Your task to perform on an android device: Open Chrome and go to the settings page Image 0: 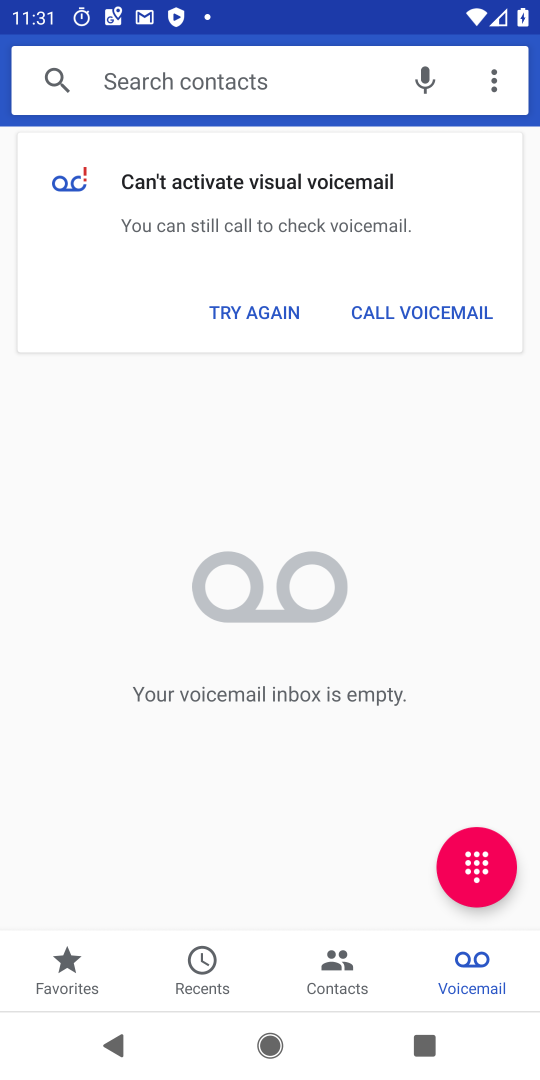
Step 0: press home button
Your task to perform on an android device: Open Chrome and go to the settings page Image 1: 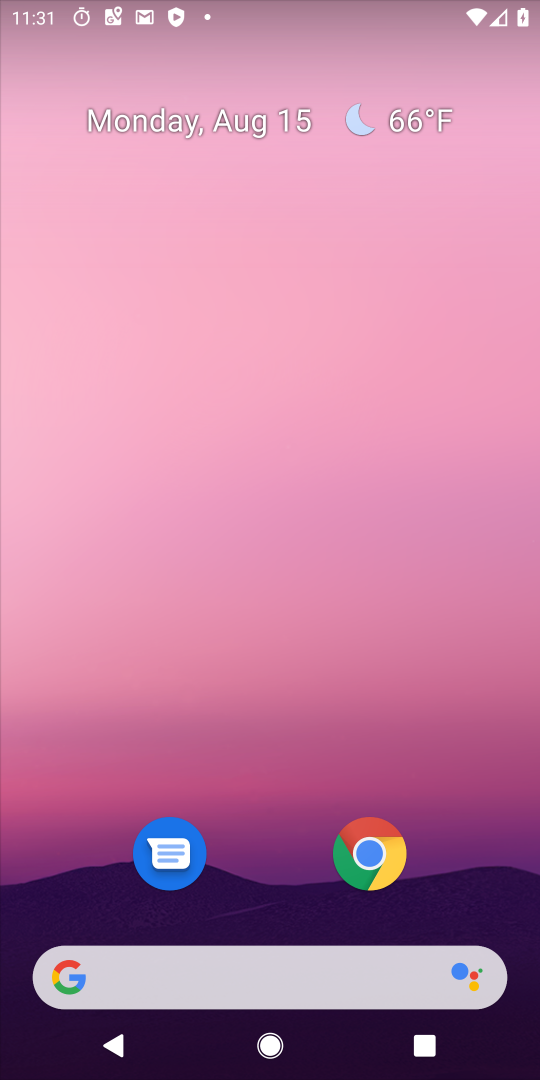
Step 1: click (360, 843)
Your task to perform on an android device: Open Chrome and go to the settings page Image 2: 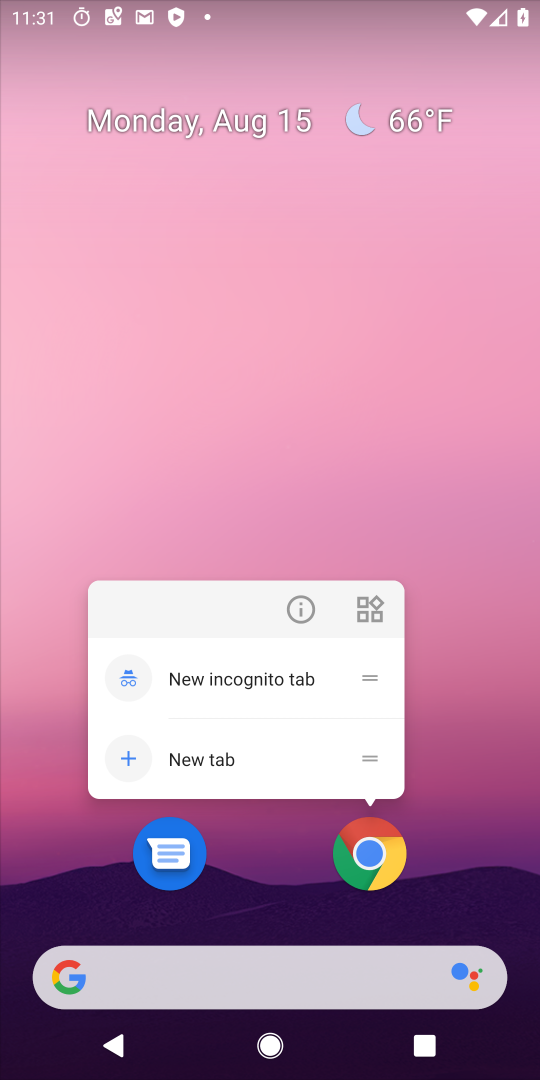
Step 2: click (363, 863)
Your task to perform on an android device: Open Chrome and go to the settings page Image 3: 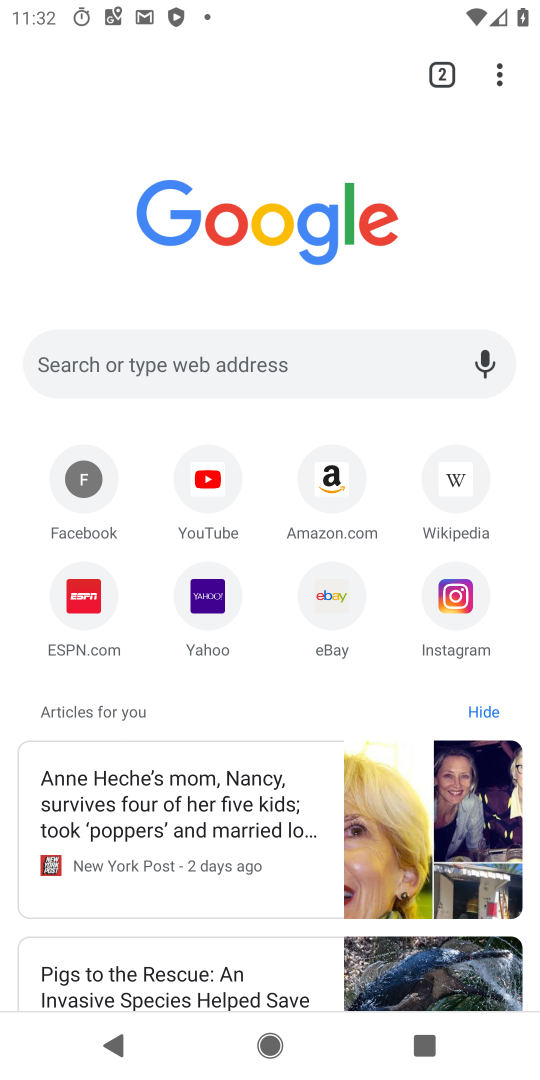
Step 3: click (495, 75)
Your task to perform on an android device: Open Chrome and go to the settings page Image 4: 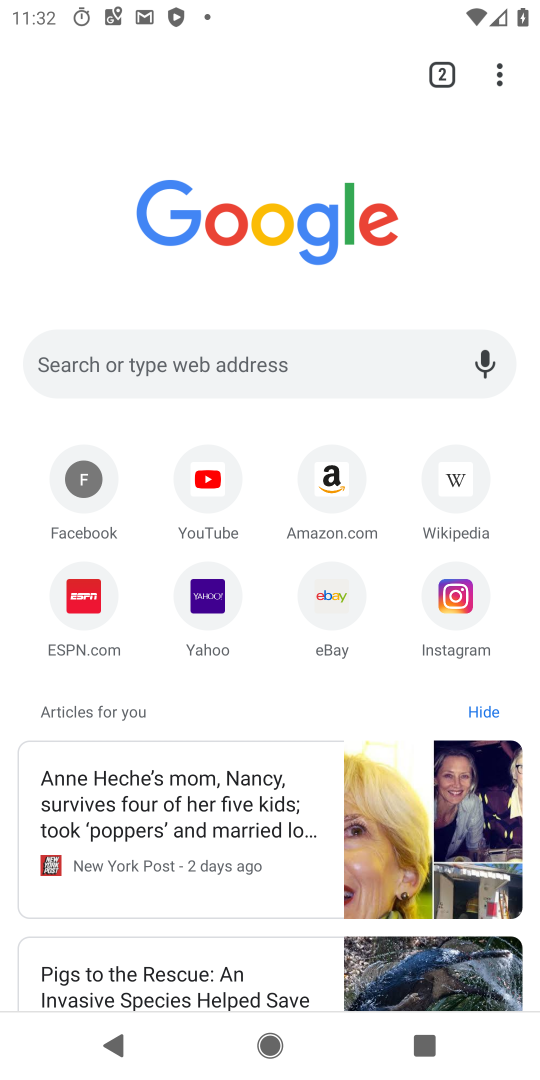
Step 4: click (489, 78)
Your task to perform on an android device: Open Chrome and go to the settings page Image 5: 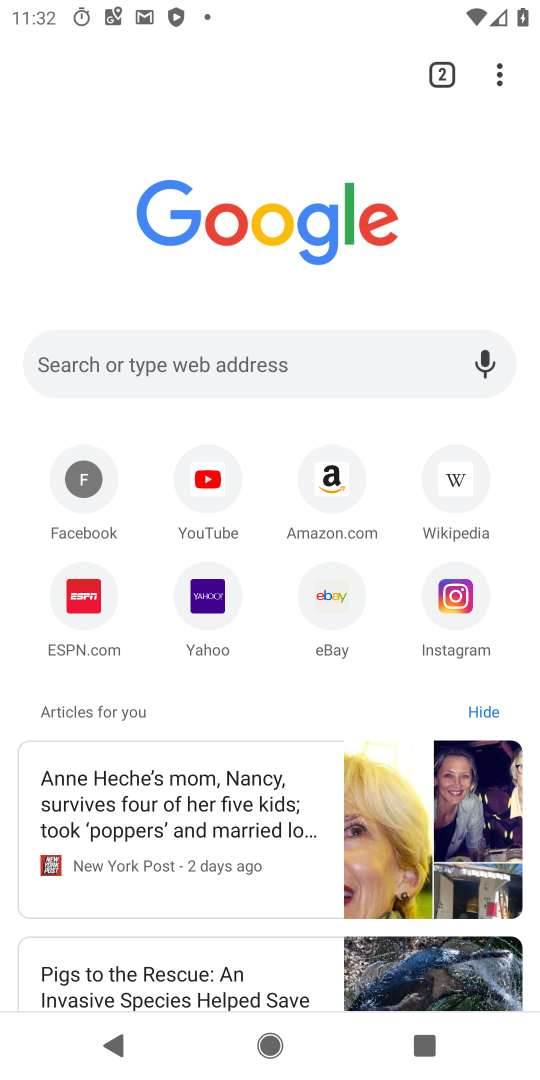
Step 5: click (498, 70)
Your task to perform on an android device: Open Chrome and go to the settings page Image 6: 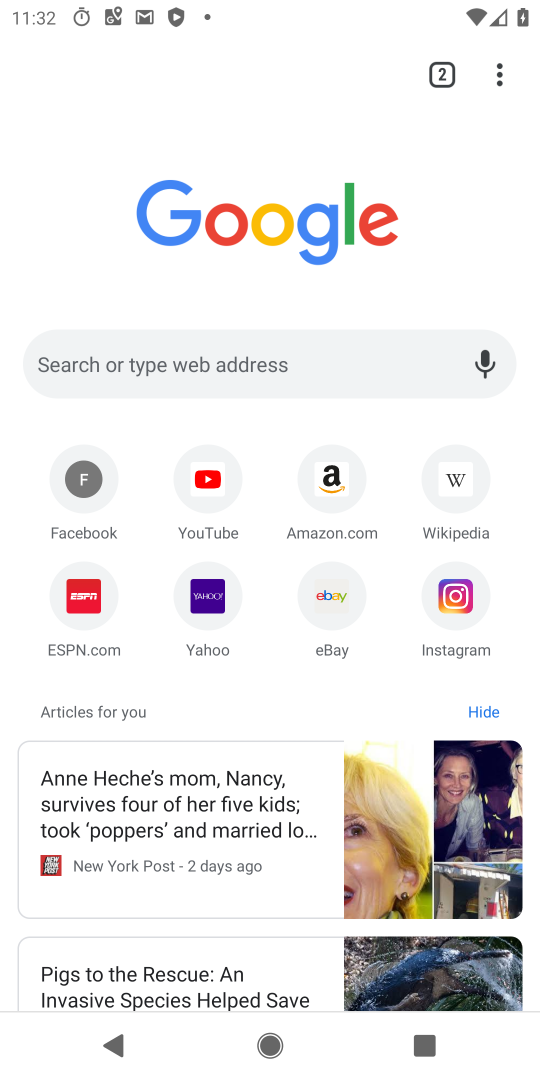
Step 6: click (503, 69)
Your task to perform on an android device: Open Chrome and go to the settings page Image 7: 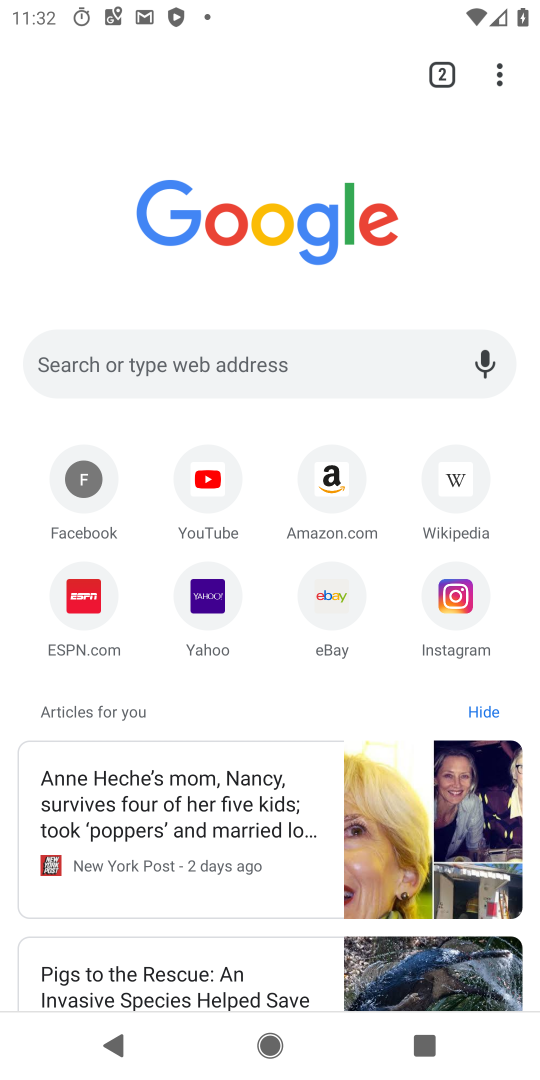
Step 7: click (500, 72)
Your task to perform on an android device: Open Chrome and go to the settings page Image 8: 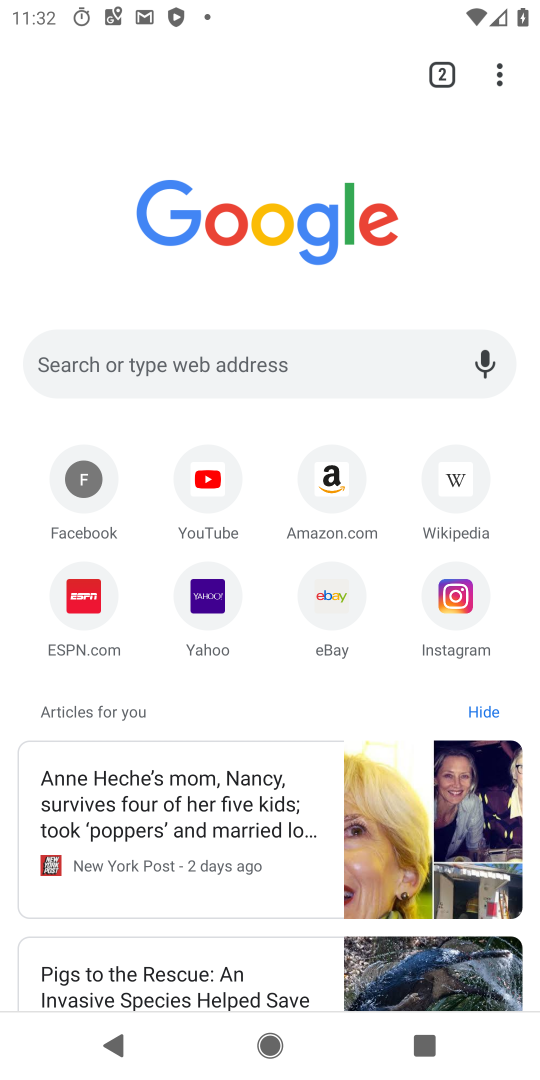
Step 8: click (493, 74)
Your task to perform on an android device: Open Chrome and go to the settings page Image 9: 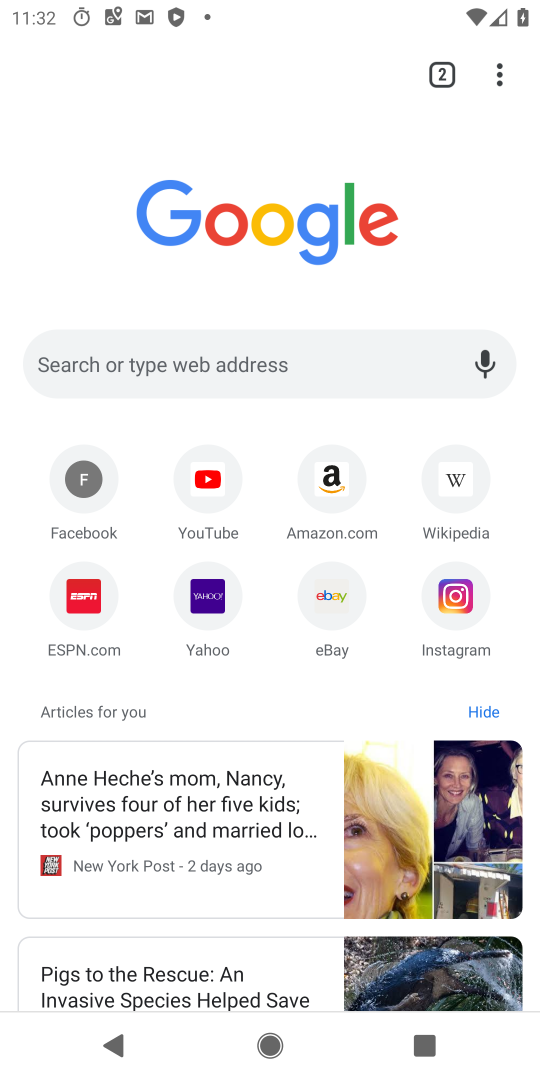
Step 9: click (502, 74)
Your task to perform on an android device: Open Chrome and go to the settings page Image 10: 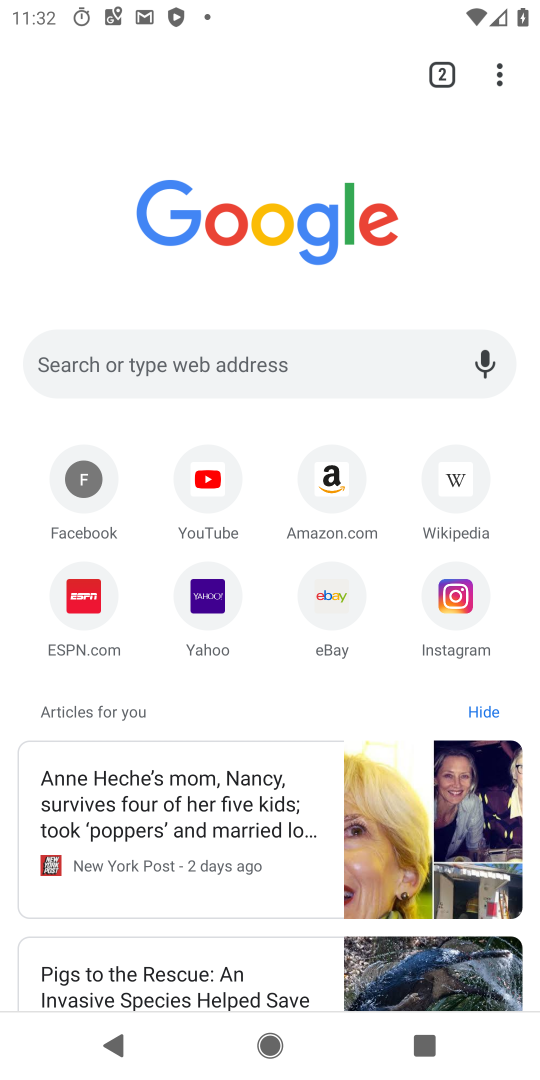
Step 10: click (502, 75)
Your task to perform on an android device: Open Chrome and go to the settings page Image 11: 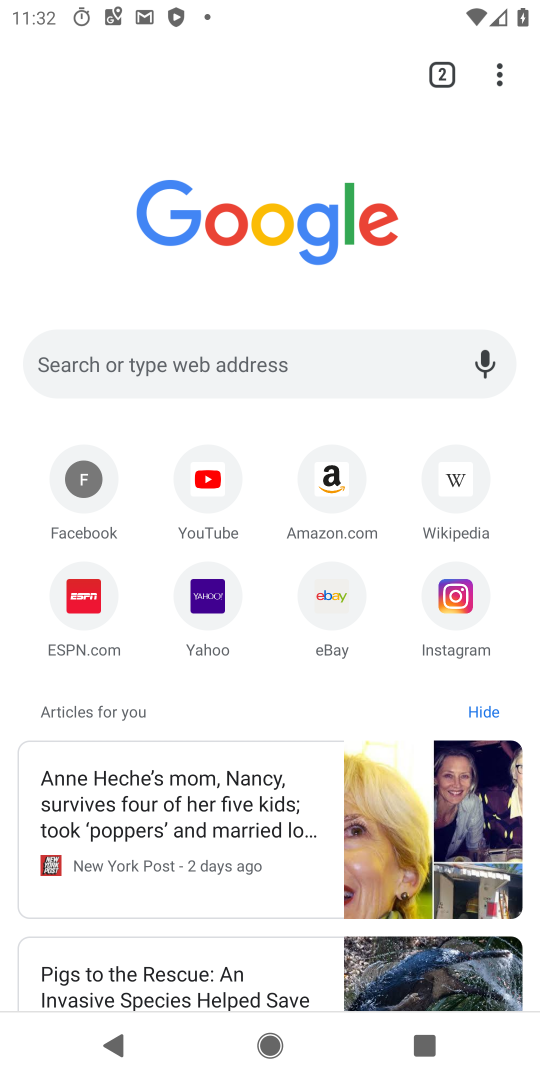
Step 11: click (503, 72)
Your task to perform on an android device: Open Chrome and go to the settings page Image 12: 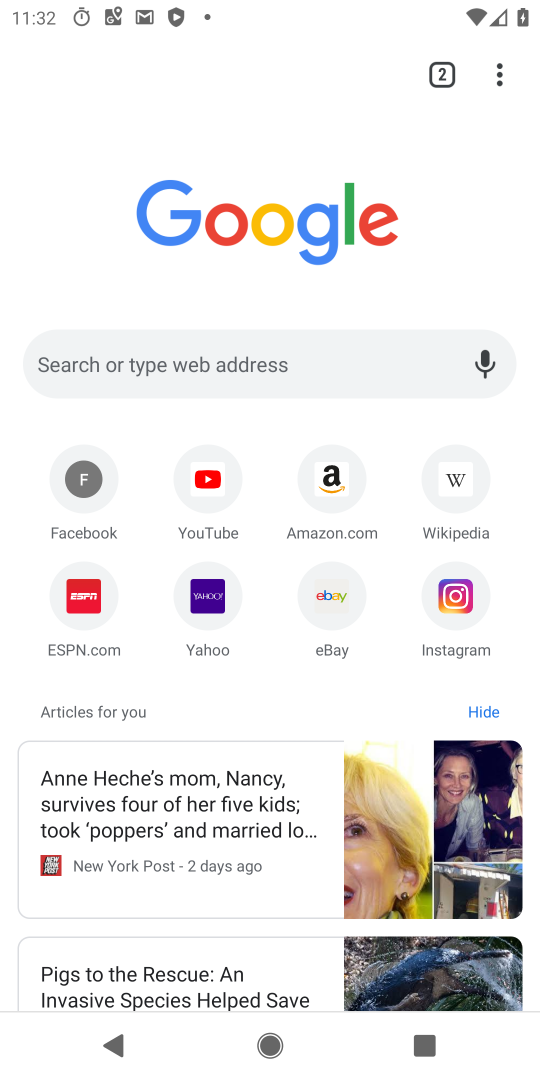
Step 12: click (500, 75)
Your task to perform on an android device: Open Chrome and go to the settings page Image 13: 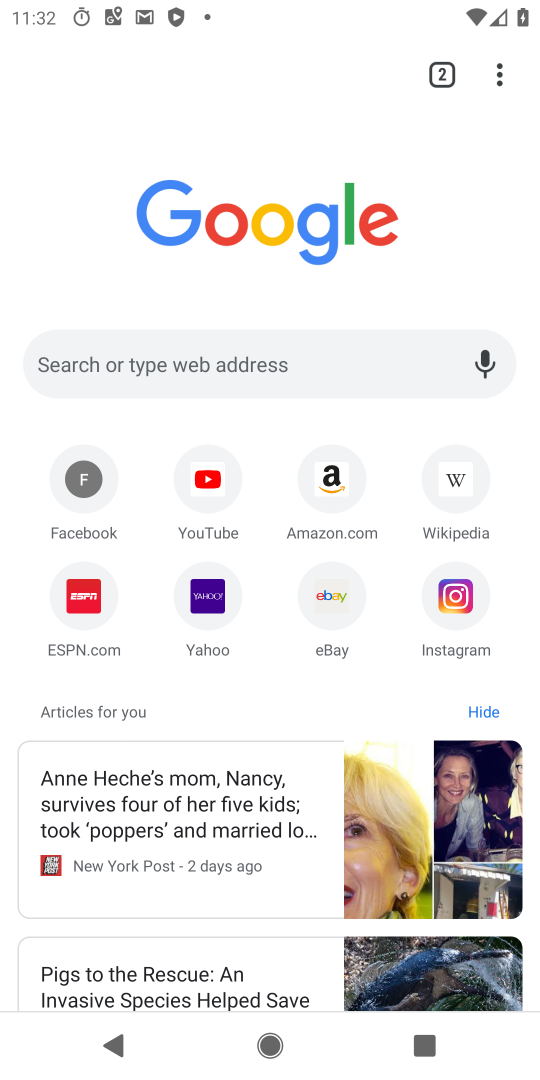
Step 13: click (495, 75)
Your task to perform on an android device: Open Chrome and go to the settings page Image 14: 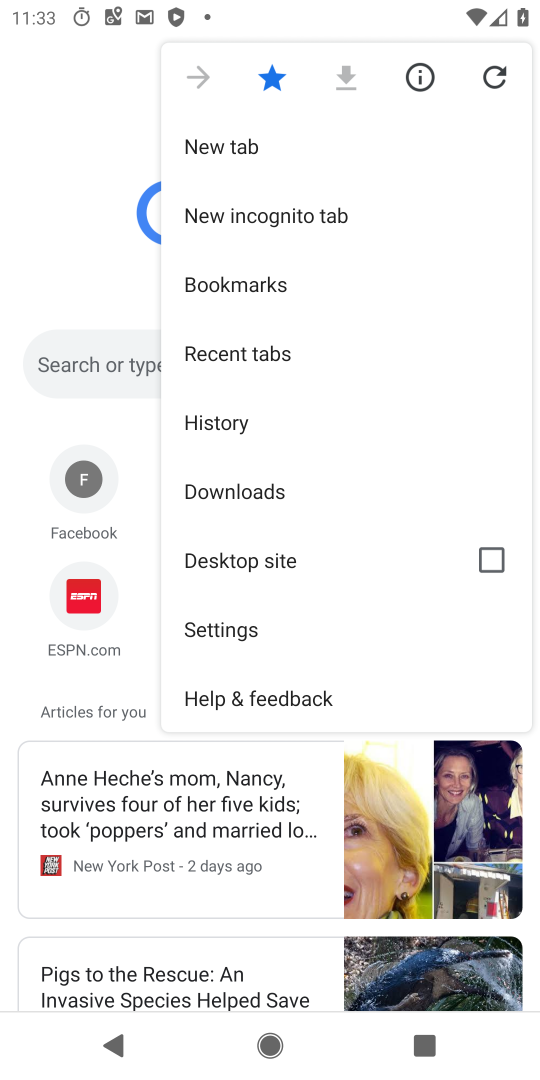
Step 14: click (227, 623)
Your task to perform on an android device: Open Chrome and go to the settings page Image 15: 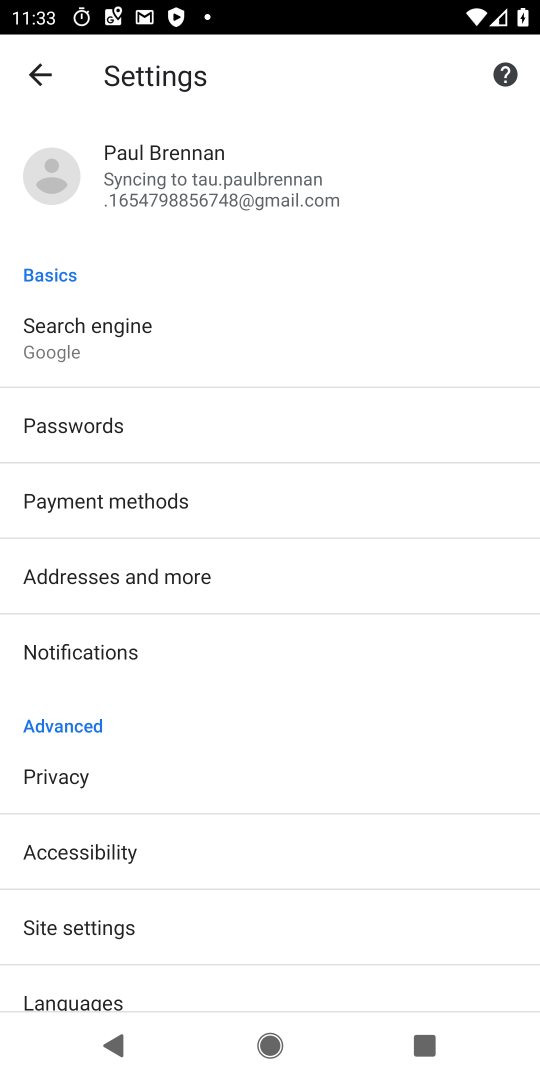
Step 15: task complete